Your task to perform on an android device: turn off airplane mode Image 0: 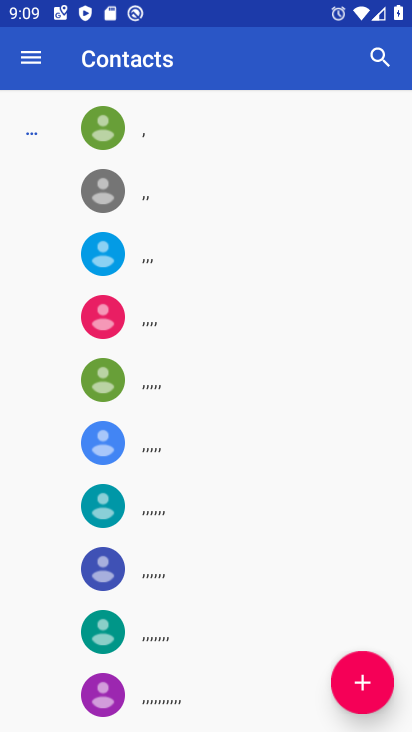
Step 0: drag from (373, 633) to (351, 326)
Your task to perform on an android device: turn off airplane mode Image 1: 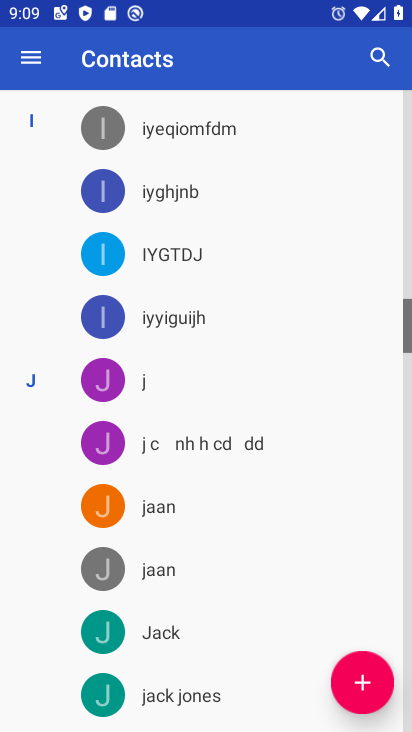
Step 1: task complete